Your task to perform on an android device: Find coffee shops on Maps Image 0: 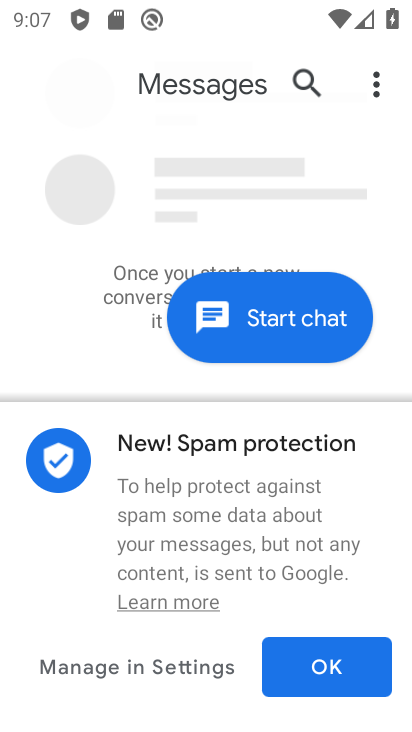
Step 0: press home button
Your task to perform on an android device: Find coffee shops on Maps Image 1: 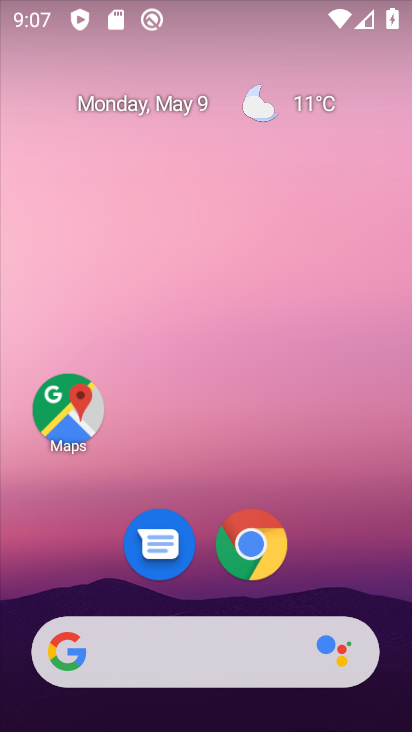
Step 1: click (64, 401)
Your task to perform on an android device: Find coffee shops on Maps Image 2: 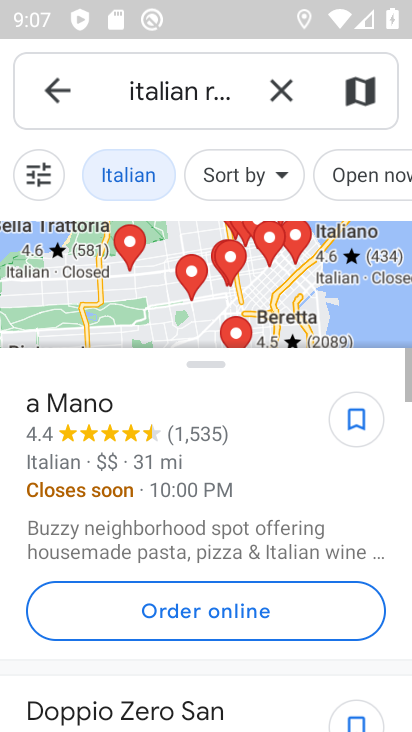
Step 2: click (275, 73)
Your task to perform on an android device: Find coffee shops on Maps Image 3: 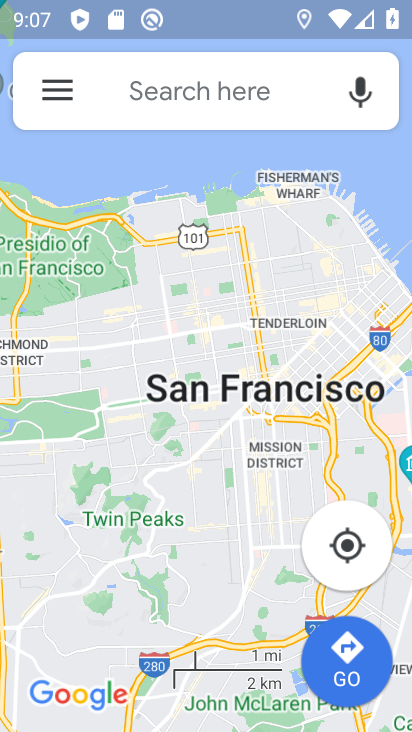
Step 3: click (117, 88)
Your task to perform on an android device: Find coffee shops on Maps Image 4: 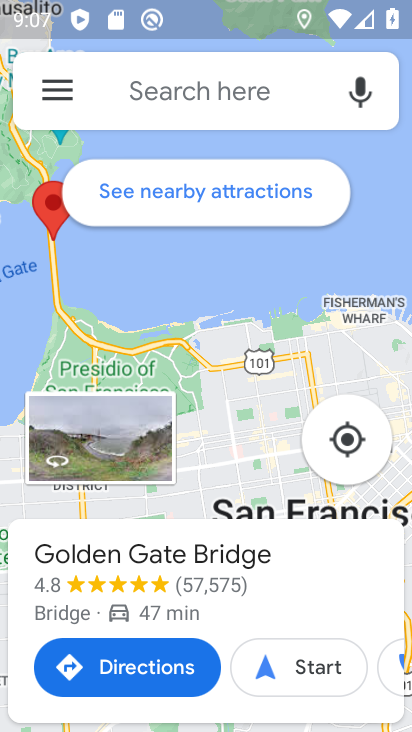
Step 4: click (135, 94)
Your task to perform on an android device: Find coffee shops on Maps Image 5: 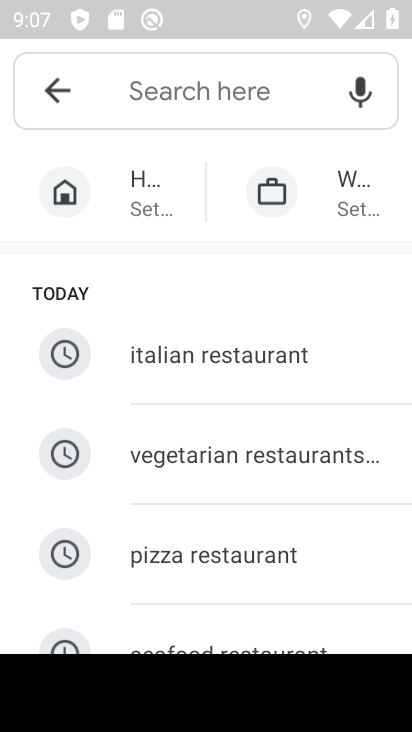
Step 5: type "coffee shops"
Your task to perform on an android device: Find coffee shops on Maps Image 6: 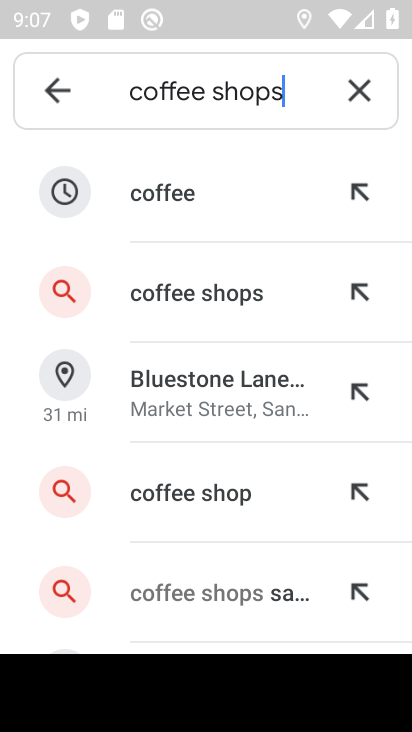
Step 6: click (197, 291)
Your task to perform on an android device: Find coffee shops on Maps Image 7: 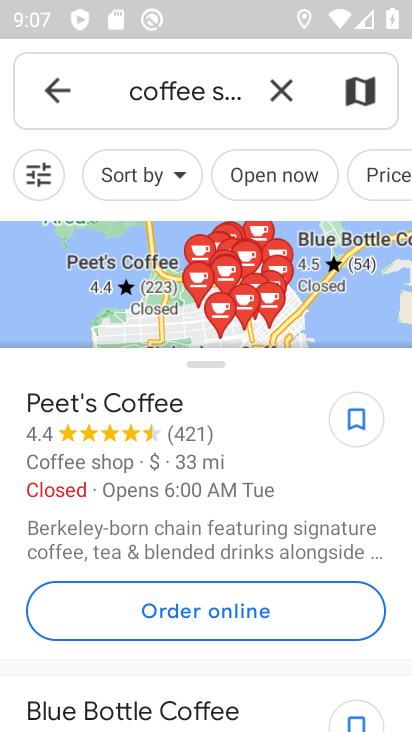
Step 7: task complete